Your task to perform on an android device: turn off smart reply in the gmail app Image 0: 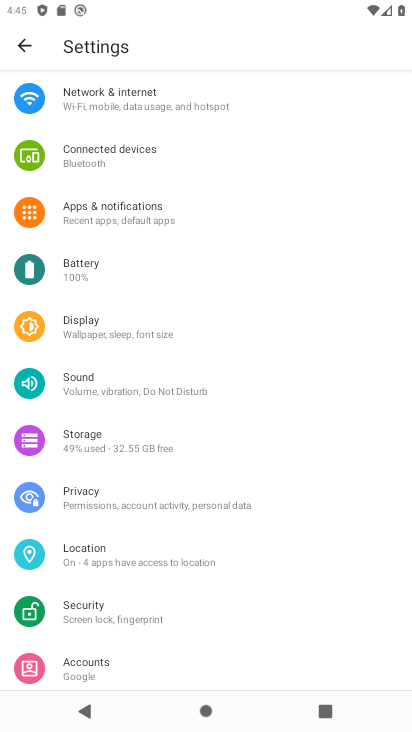
Step 0: press back button
Your task to perform on an android device: turn off smart reply in the gmail app Image 1: 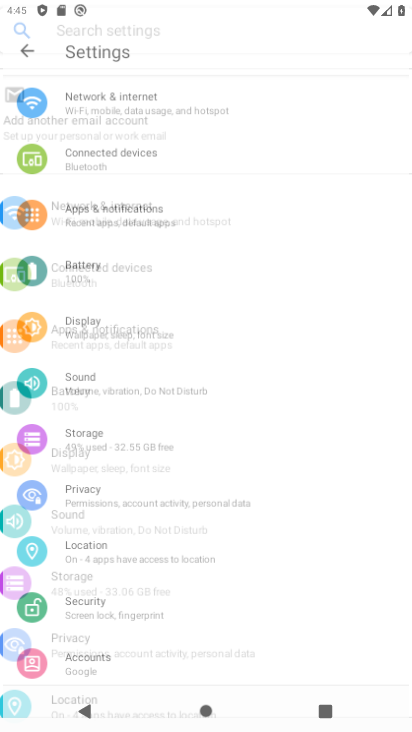
Step 1: press home button
Your task to perform on an android device: turn off smart reply in the gmail app Image 2: 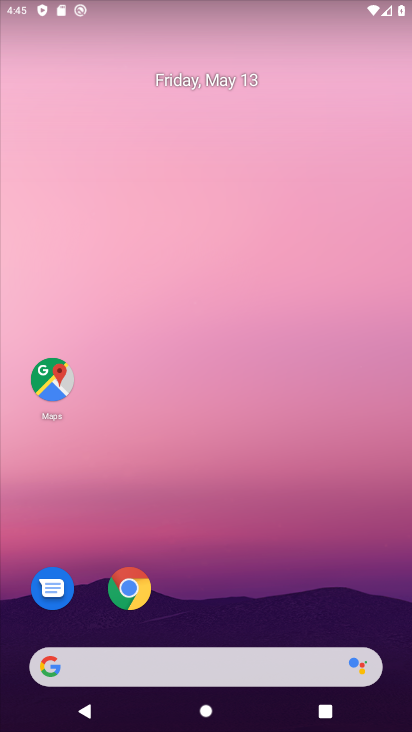
Step 2: drag from (161, 623) to (219, 255)
Your task to perform on an android device: turn off smart reply in the gmail app Image 3: 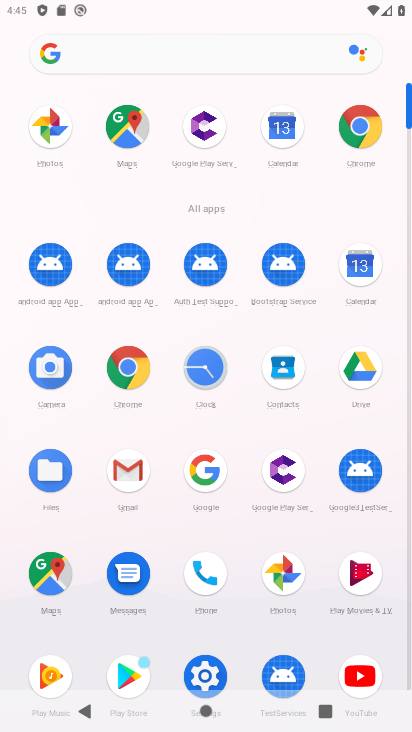
Step 3: click (129, 465)
Your task to perform on an android device: turn off smart reply in the gmail app Image 4: 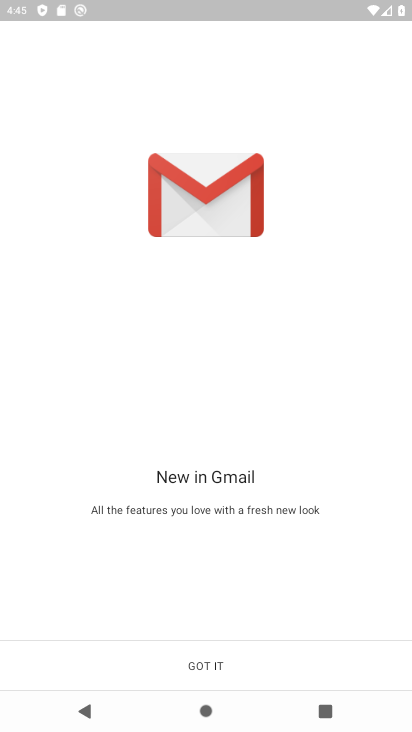
Step 4: click (263, 652)
Your task to perform on an android device: turn off smart reply in the gmail app Image 5: 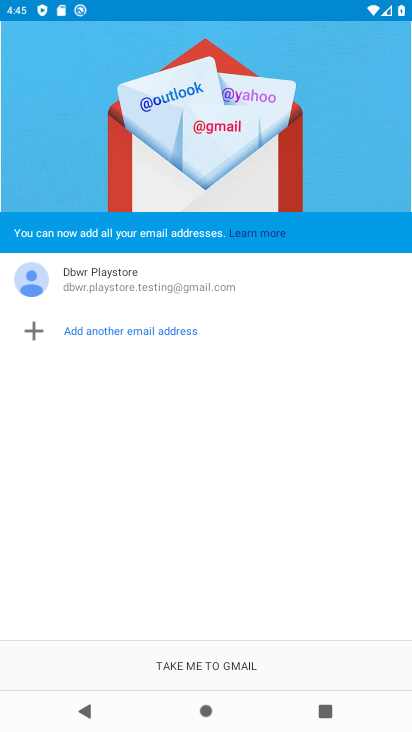
Step 5: click (239, 673)
Your task to perform on an android device: turn off smart reply in the gmail app Image 6: 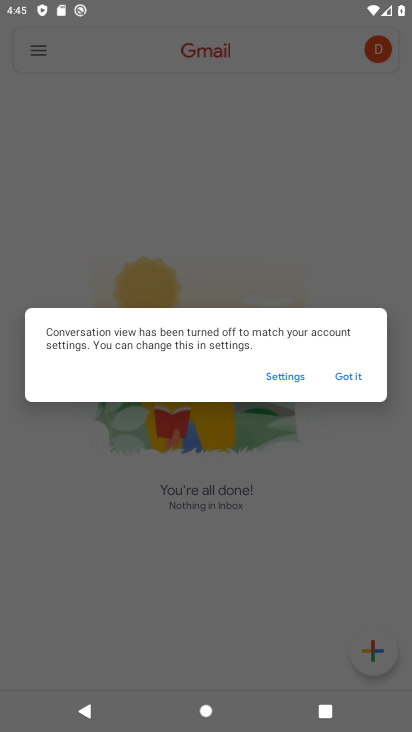
Step 6: click (361, 387)
Your task to perform on an android device: turn off smart reply in the gmail app Image 7: 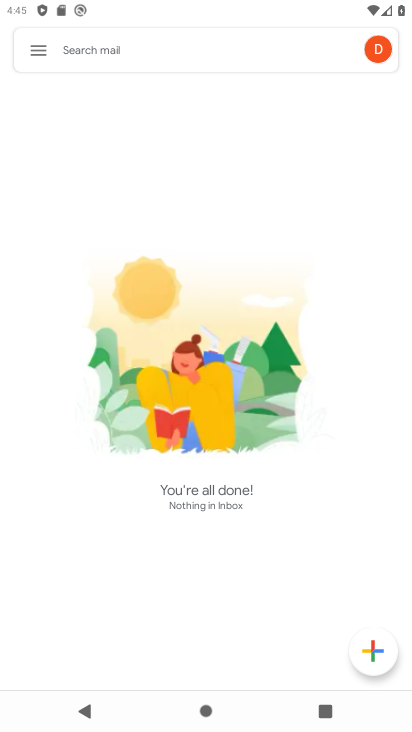
Step 7: click (44, 36)
Your task to perform on an android device: turn off smart reply in the gmail app Image 8: 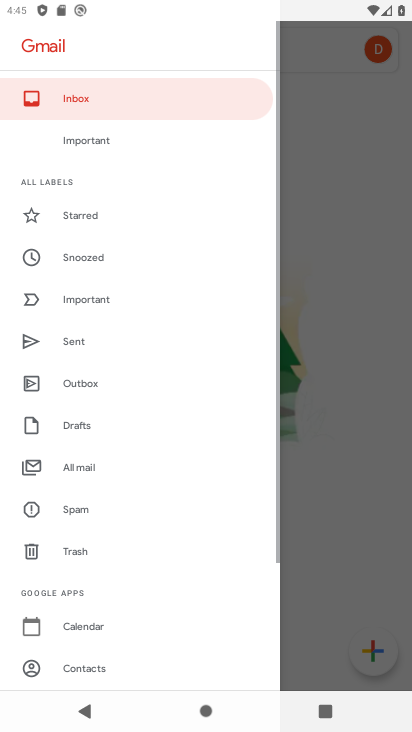
Step 8: drag from (110, 572) to (177, 309)
Your task to perform on an android device: turn off smart reply in the gmail app Image 9: 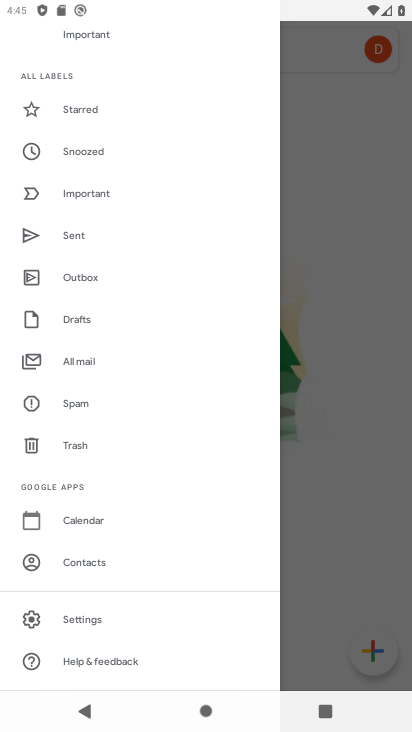
Step 9: click (128, 624)
Your task to perform on an android device: turn off smart reply in the gmail app Image 10: 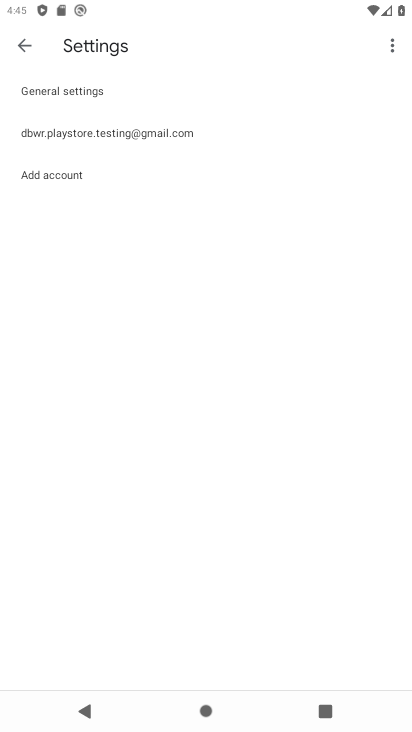
Step 10: click (191, 142)
Your task to perform on an android device: turn off smart reply in the gmail app Image 11: 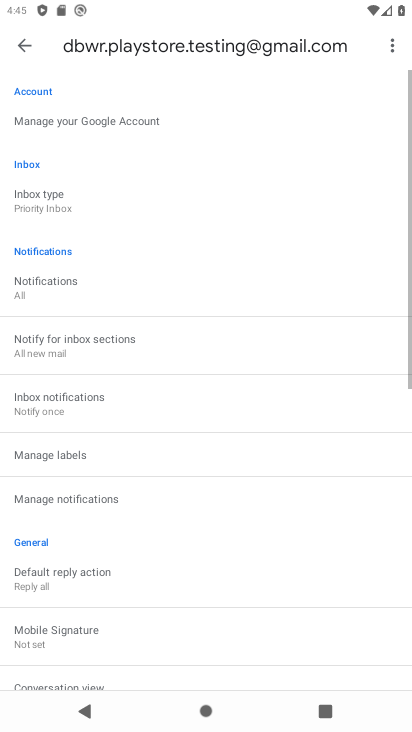
Step 11: drag from (139, 600) to (222, 249)
Your task to perform on an android device: turn off smart reply in the gmail app Image 12: 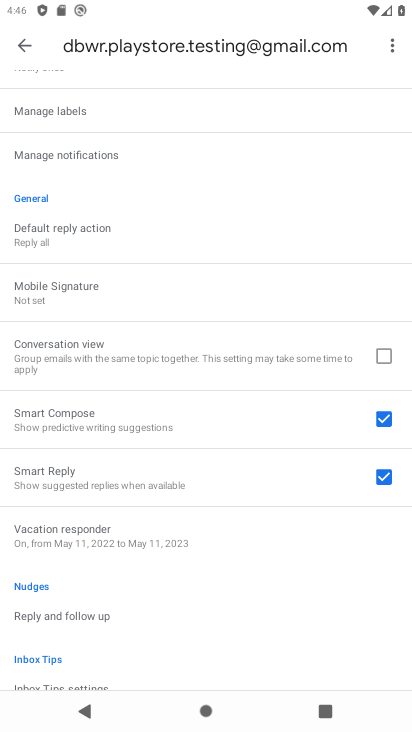
Step 12: click (383, 476)
Your task to perform on an android device: turn off smart reply in the gmail app Image 13: 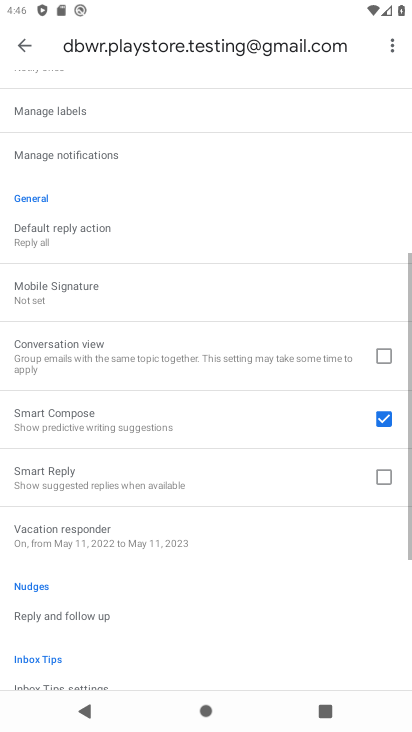
Step 13: task complete